Your task to perform on an android device: Go to settings Image 0: 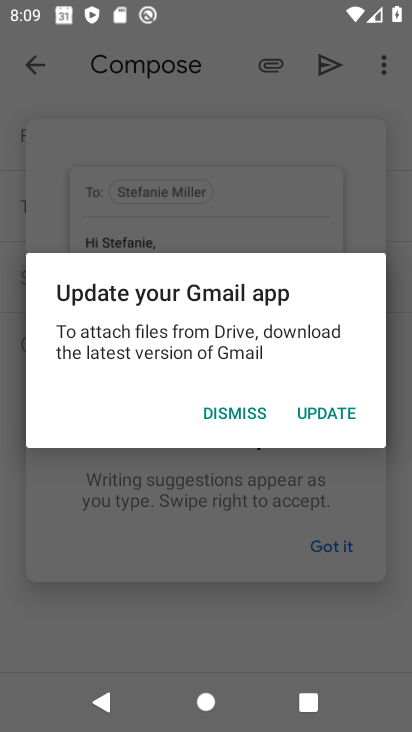
Step 0: press home button
Your task to perform on an android device: Go to settings Image 1: 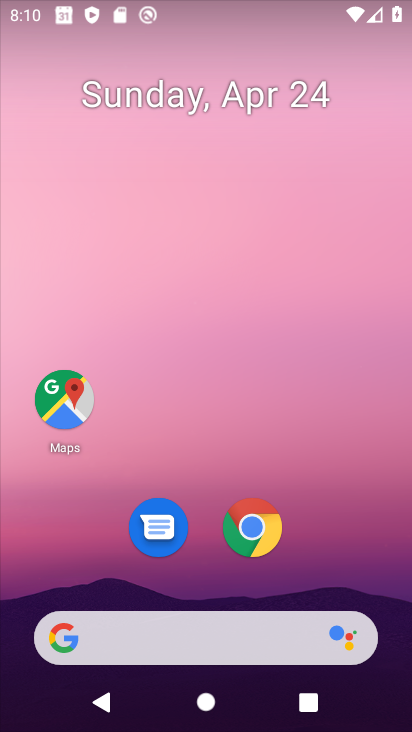
Step 1: drag from (397, 568) to (399, 3)
Your task to perform on an android device: Go to settings Image 2: 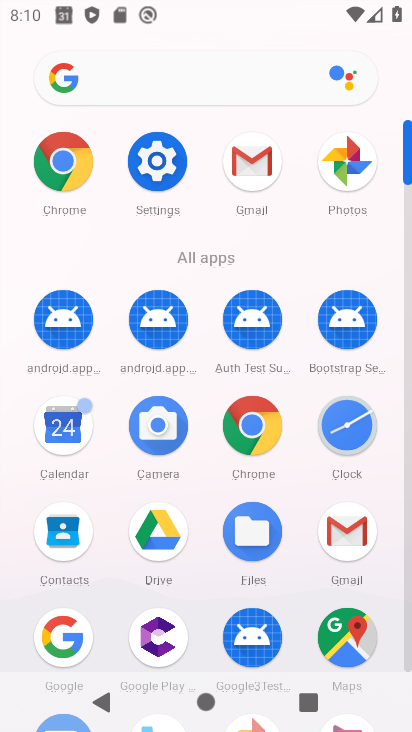
Step 2: click (149, 163)
Your task to perform on an android device: Go to settings Image 3: 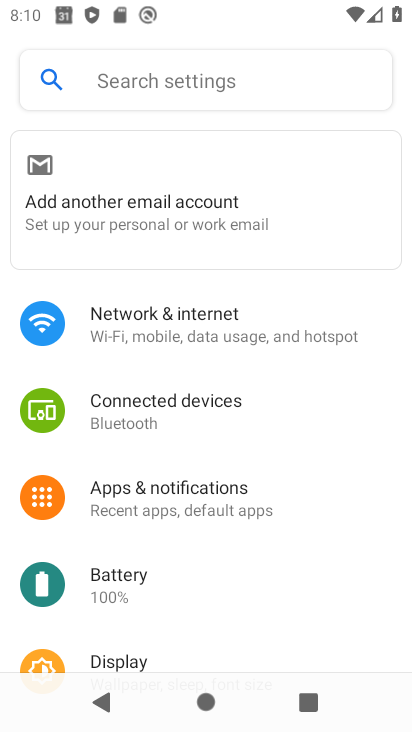
Step 3: task complete